Your task to perform on an android device: turn pop-ups off in chrome Image 0: 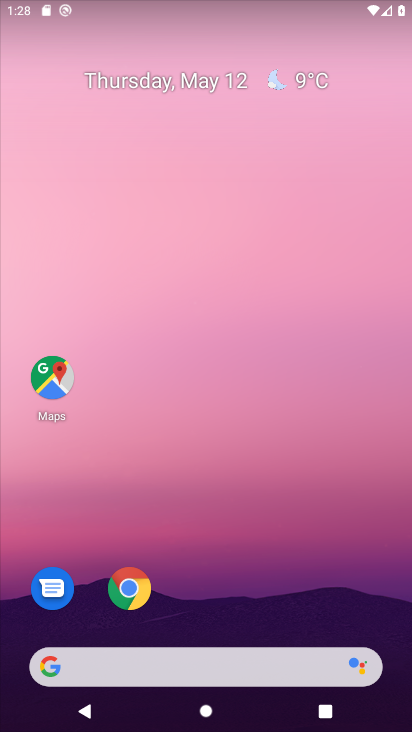
Step 0: drag from (277, 577) to (231, 78)
Your task to perform on an android device: turn pop-ups off in chrome Image 1: 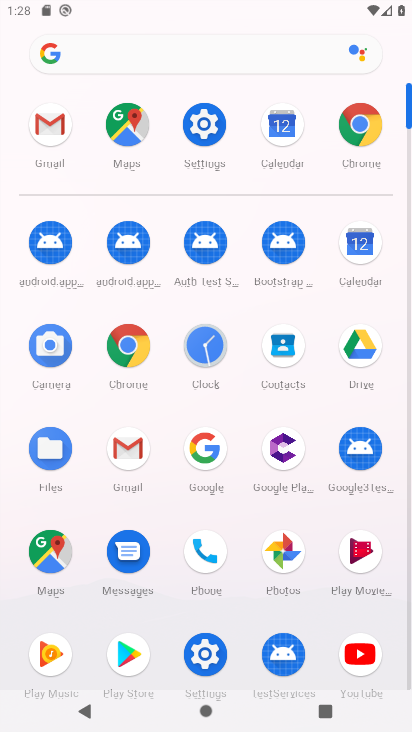
Step 1: click (119, 369)
Your task to perform on an android device: turn pop-ups off in chrome Image 2: 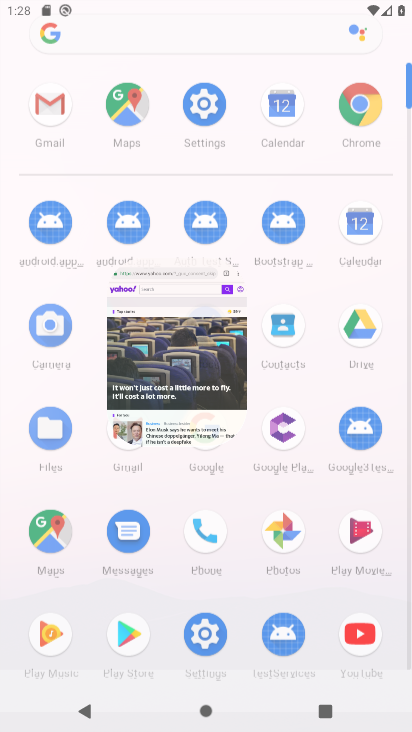
Step 2: click (118, 351)
Your task to perform on an android device: turn pop-ups off in chrome Image 3: 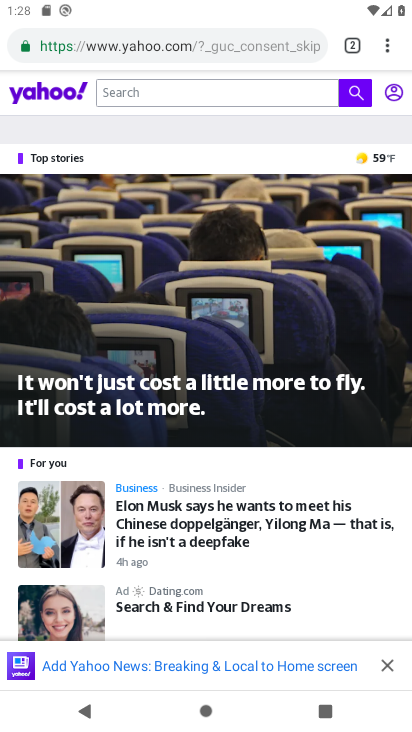
Step 3: drag from (381, 48) to (248, 542)
Your task to perform on an android device: turn pop-ups off in chrome Image 4: 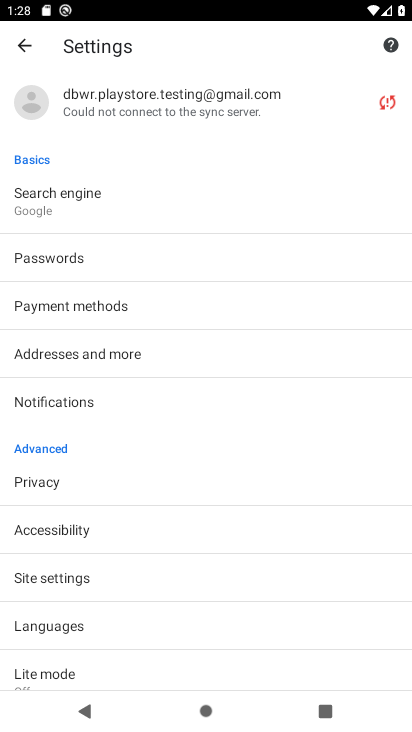
Step 4: drag from (163, 579) to (205, 280)
Your task to perform on an android device: turn pop-ups off in chrome Image 5: 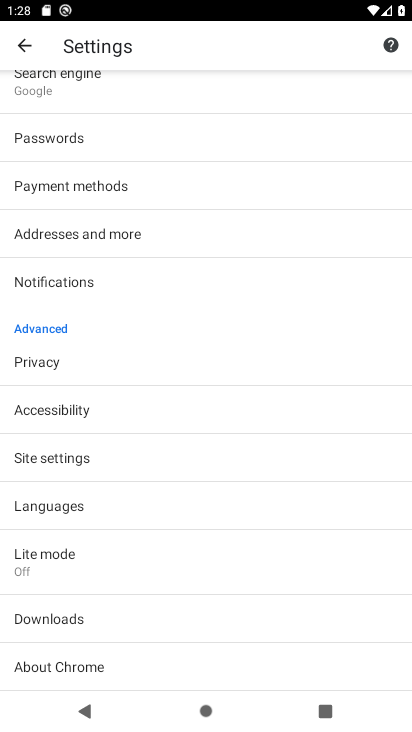
Step 5: click (76, 450)
Your task to perform on an android device: turn pop-ups off in chrome Image 6: 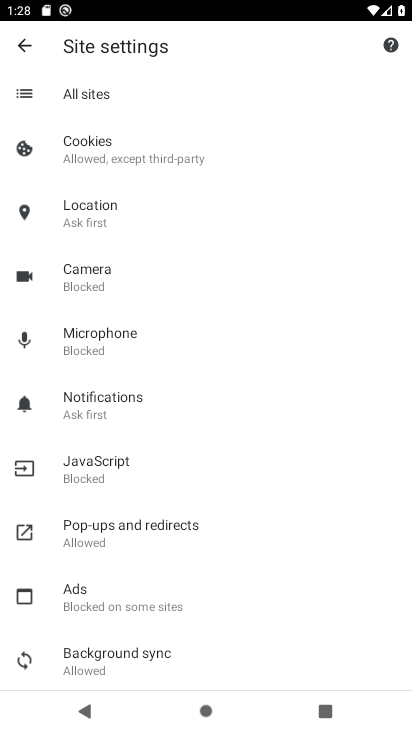
Step 6: click (128, 534)
Your task to perform on an android device: turn pop-ups off in chrome Image 7: 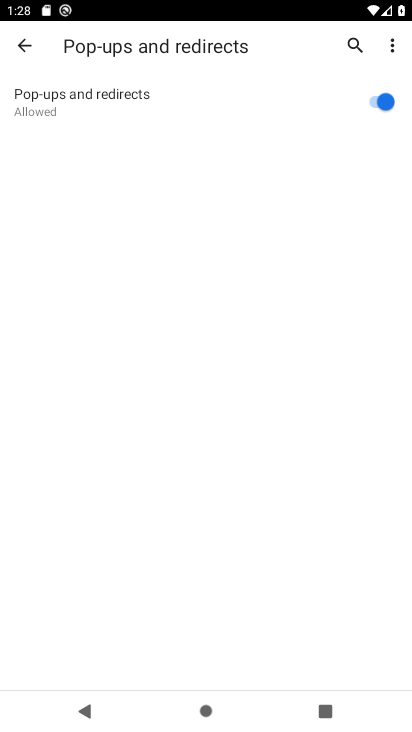
Step 7: click (367, 97)
Your task to perform on an android device: turn pop-ups off in chrome Image 8: 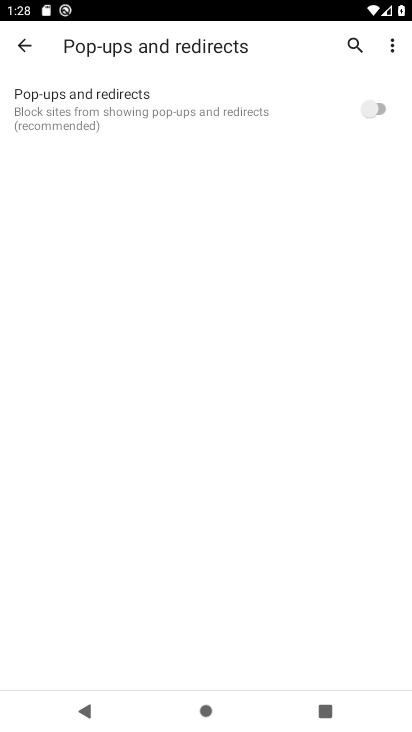
Step 8: task complete